Your task to perform on an android device: find which apps use the phone's location Image 0: 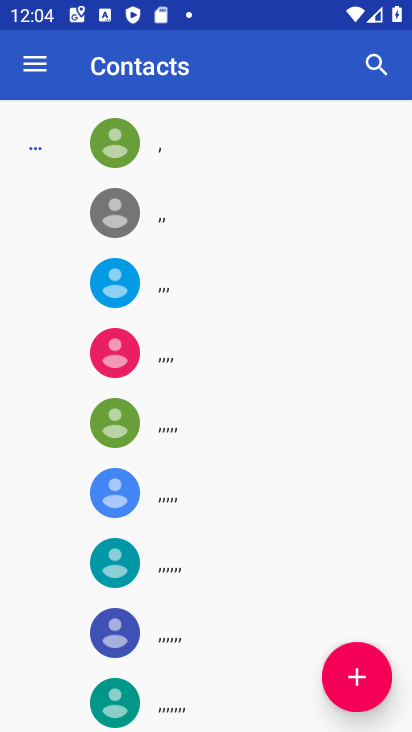
Step 0: press home button
Your task to perform on an android device: find which apps use the phone's location Image 1: 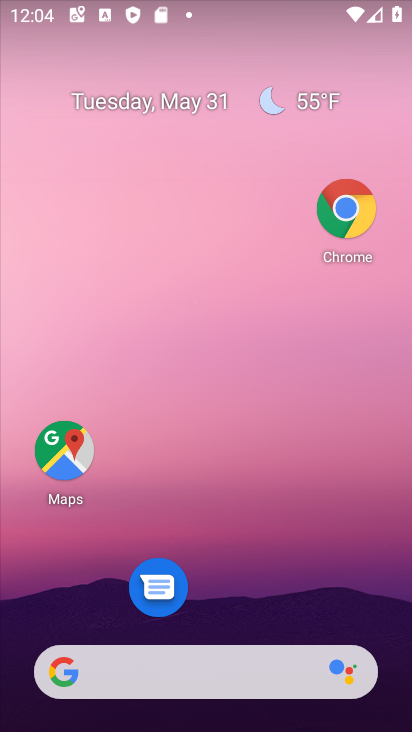
Step 1: drag from (214, 622) to (207, 330)
Your task to perform on an android device: find which apps use the phone's location Image 2: 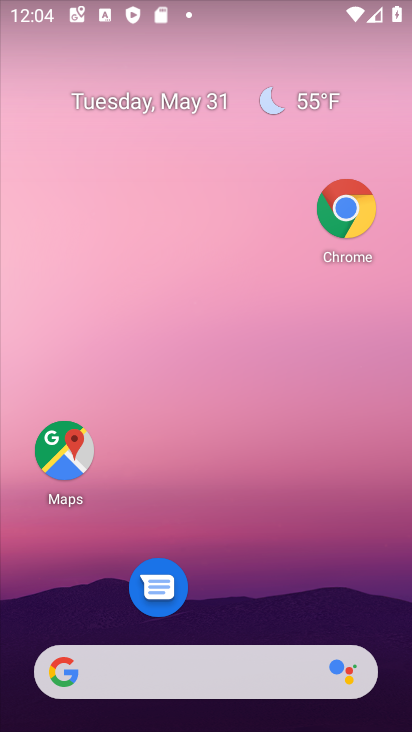
Step 2: drag from (207, 623) to (214, 46)
Your task to perform on an android device: find which apps use the phone's location Image 3: 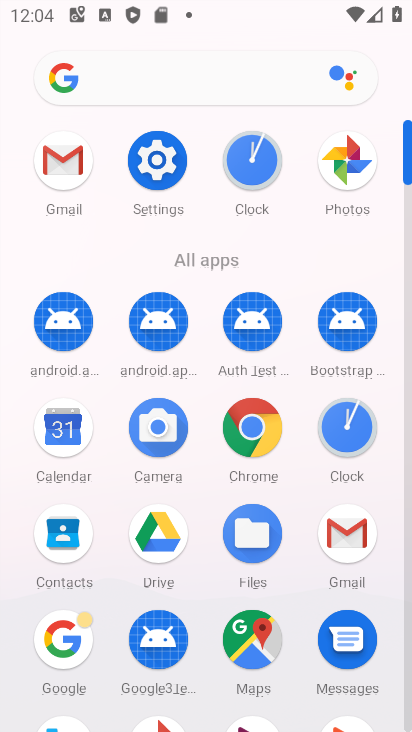
Step 3: click (158, 145)
Your task to perform on an android device: find which apps use the phone's location Image 4: 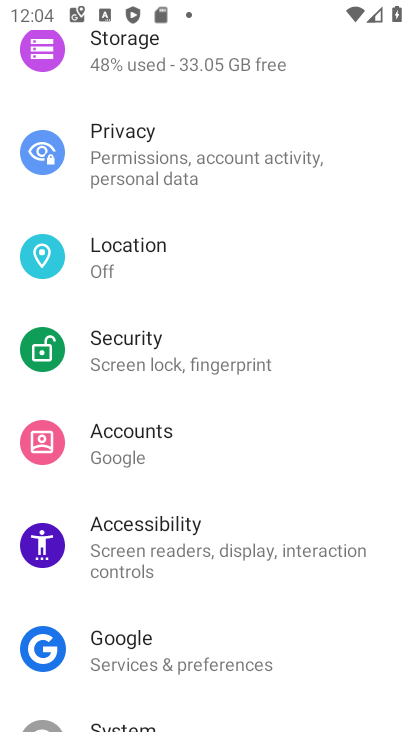
Step 4: click (153, 251)
Your task to perform on an android device: find which apps use the phone's location Image 5: 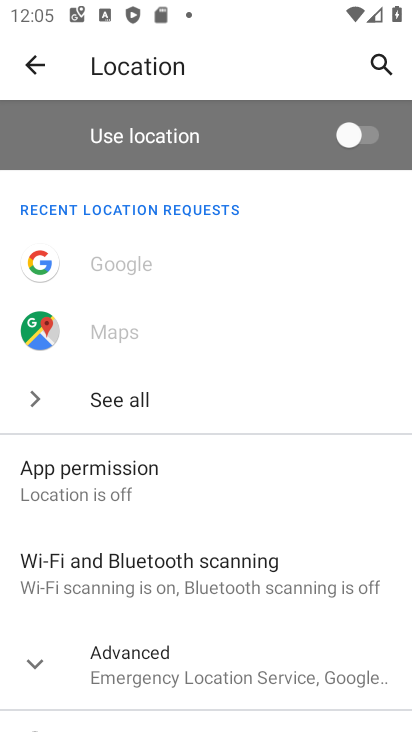
Step 5: click (155, 401)
Your task to perform on an android device: find which apps use the phone's location Image 6: 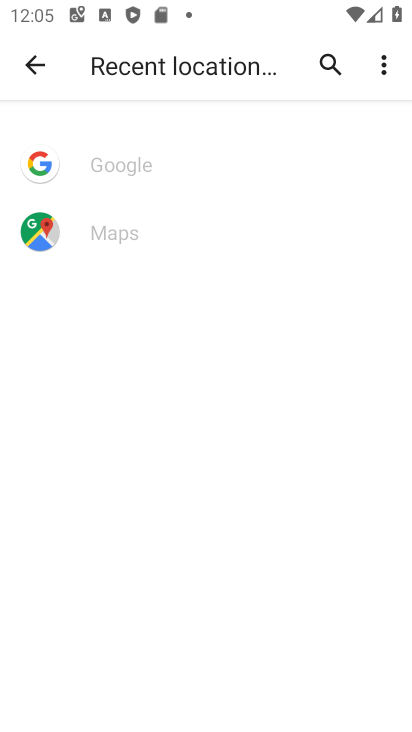
Step 6: task complete